Your task to perform on an android device: Clear the cart on newegg. Search for macbook pro 15 inch on newegg, select the first entry, and add it to the cart. Image 0: 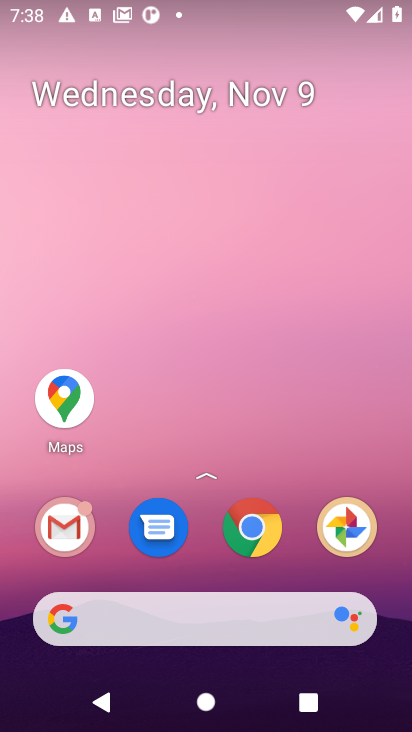
Step 0: click (253, 532)
Your task to perform on an android device: Clear the cart on newegg. Search for macbook pro 15 inch on newegg, select the first entry, and add it to the cart. Image 1: 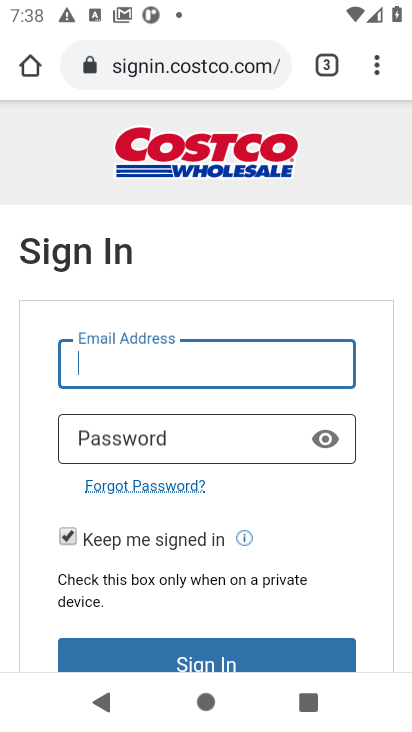
Step 1: click (150, 68)
Your task to perform on an android device: Clear the cart on newegg. Search for macbook pro 15 inch on newegg, select the first entry, and add it to the cart. Image 2: 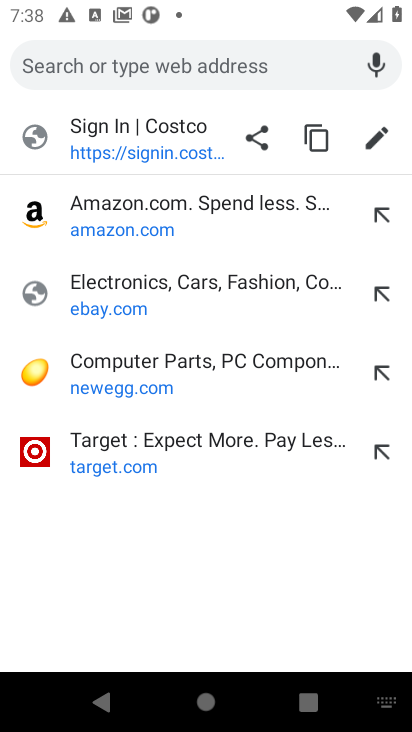
Step 2: click (113, 378)
Your task to perform on an android device: Clear the cart on newegg. Search for macbook pro 15 inch on newegg, select the first entry, and add it to the cart. Image 3: 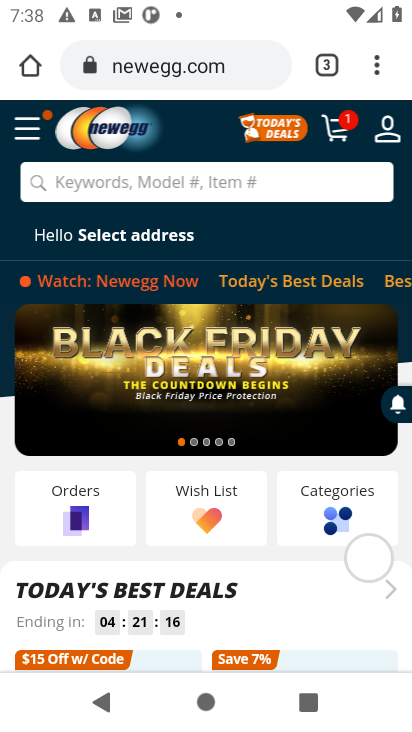
Step 3: click (345, 130)
Your task to perform on an android device: Clear the cart on newegg. Search for macbook pro 15 inch on newegg, select the first entry, and add it to the cart. Image 4: 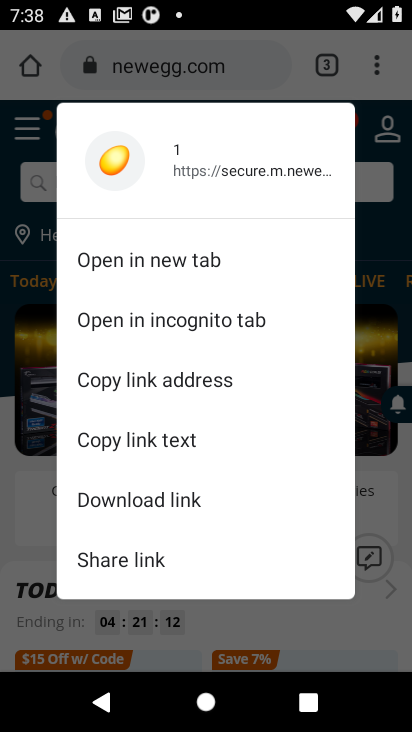
Step 4: click (7, 151)
Your task to perform on an android device: Clear the cart on newegg. Search for macbook pro 15 inch on newegg, select the first entry, and add it to the cart. Image 5: 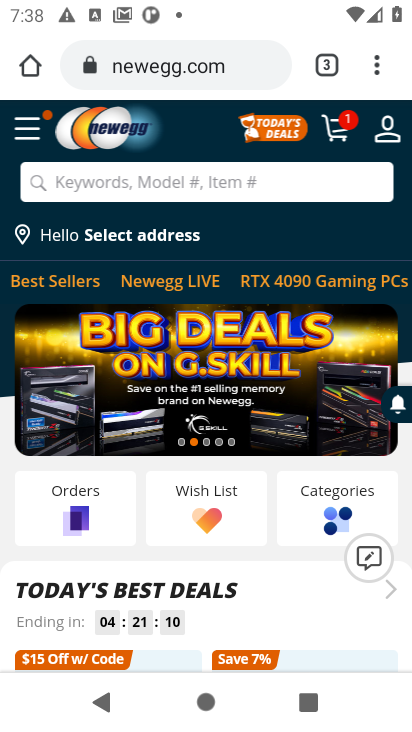
Step 5: click (337, 122)
Your task to perform on an android device: Clear the cart on newegg. Search for macbook pro 15 inch on newegg, select the first entry, and add it to the cart. Image 6: 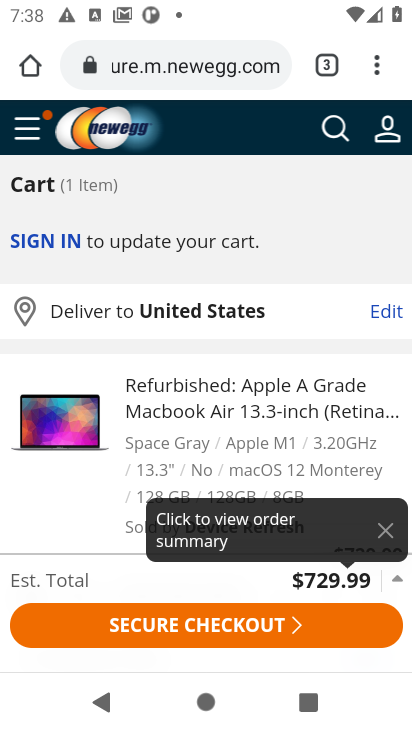
Step 6: drag from (88, 506) to (91, 317)
Your task to perform on an android device: Clear the cart on newegg. Search for macbook pro 15 inch on newegg, select the first entry, and add it to the cart. Image 7: 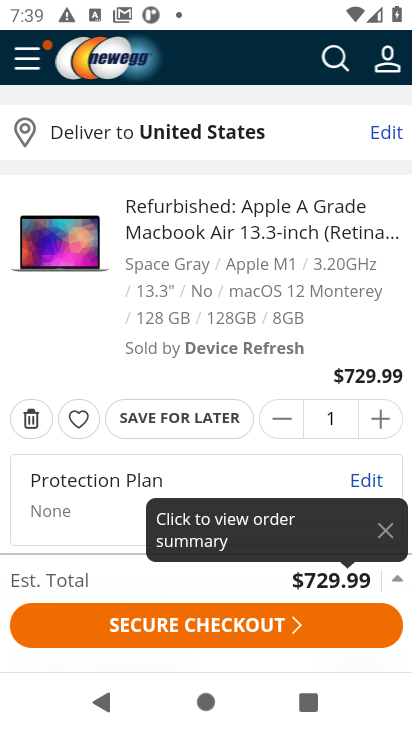
Step 7: click (27, 419)
Your task to perform on an android device: Clear the cart on newegg. Search for macbook pro 15 inch on newegg, select the first entry, and add it to the cart. Image 8: 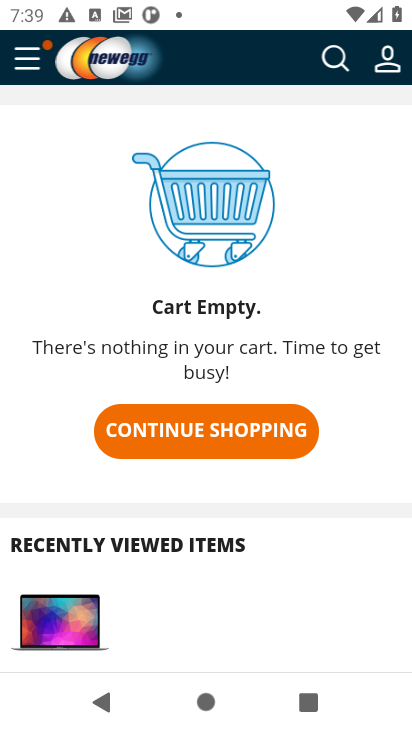
Step 8: click (190, 430)
Your task to perform on an android device: Clear the cart on newegg. Search for macbook pro 15 inch on newegg, select the first entry, and add it to the cart. Image 9: 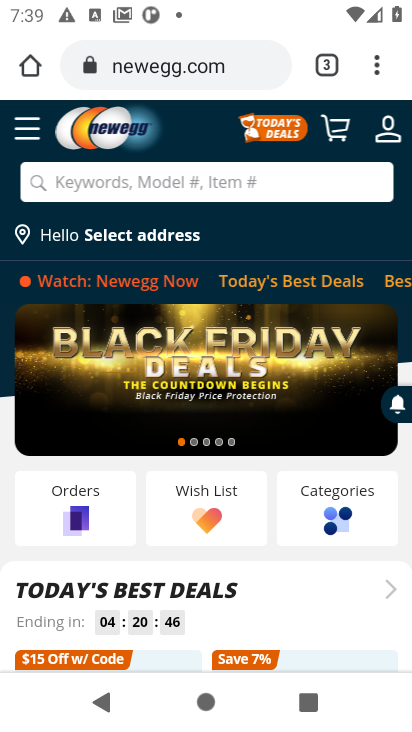
Step 9: click (187, 177)
Your task to perform on an android device: Clear the cart on newegg. Search for macbook pro 15 inch on newegg, select the first entry, and add it to the cart. Image 10: 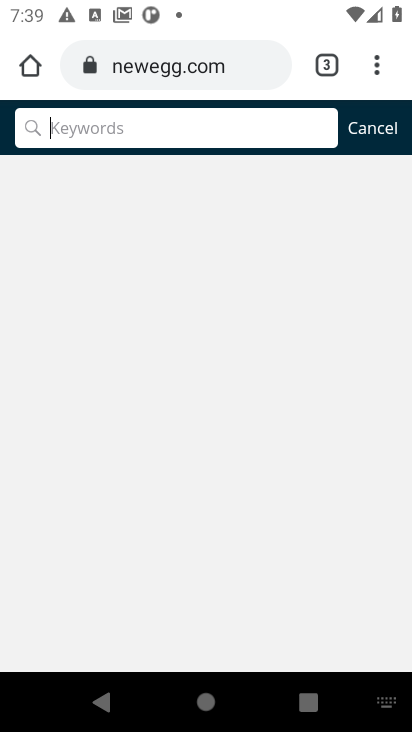
Step 10: type "macbook pro 15 inch"
Your task to perform on an android device: Clear the cart on newegg. Search for macbook pro 15 inch on newegg, select the first entry, and add it to the cart. Image 11: 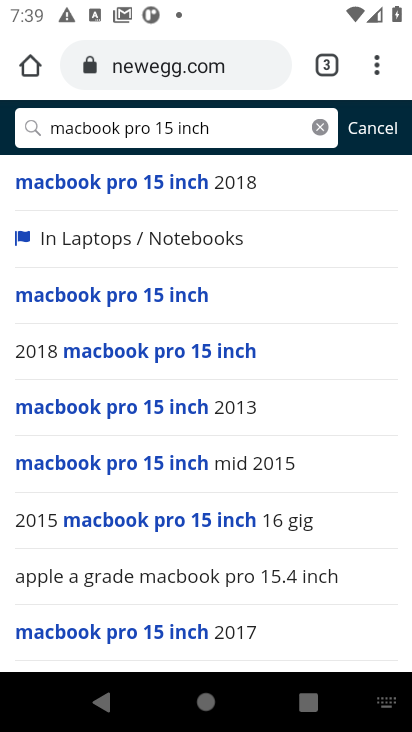
Step 11: click (143, 307)
Your task to perform on an android device: Clear the cart on newegg. Search for macbook pro 15 inch on newegg, select the first entry, and add it to the cart. Image 12: 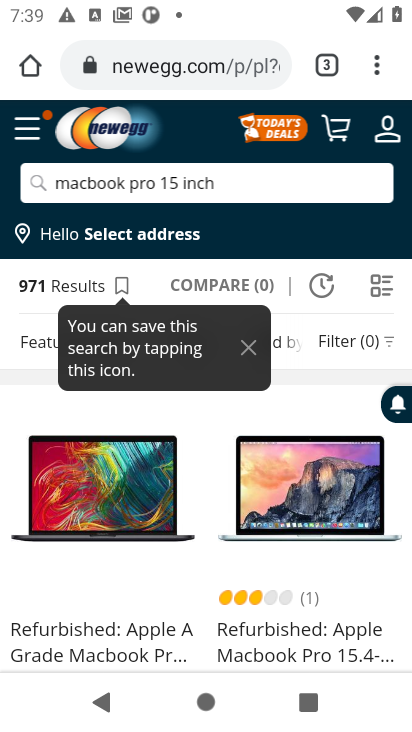
Step 12: drag from (188, 592) to (176, 341)
Your task to perform on an android device: Clear the cart on newegg. Search for macbook pro 15 inch on newegg, select the first entry, and add it to the cart. Image 13: 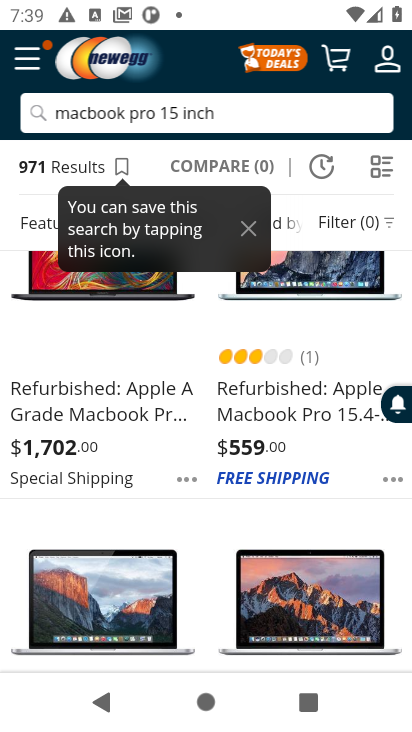
Step 13: click (81, 338)
Your task to perform on an android device: Clear the cart on newegg. Search for macbook pro 15 inch on newegg, select the first entry, and add it to the cart. Image 14: 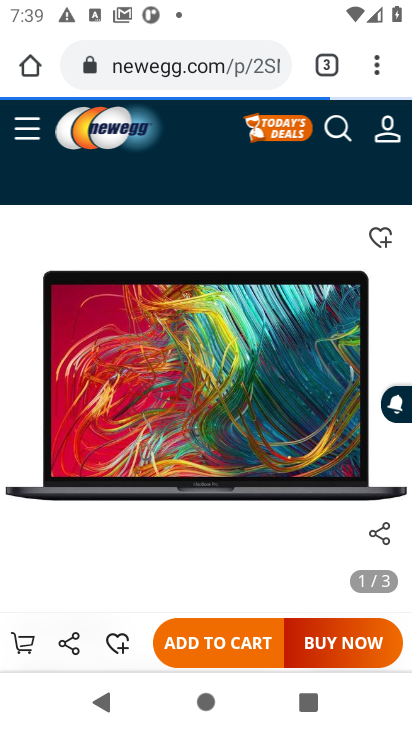
Step 14: task complete